Your task to perform on an android device: choose inbox layout in the gmail app Image 0: 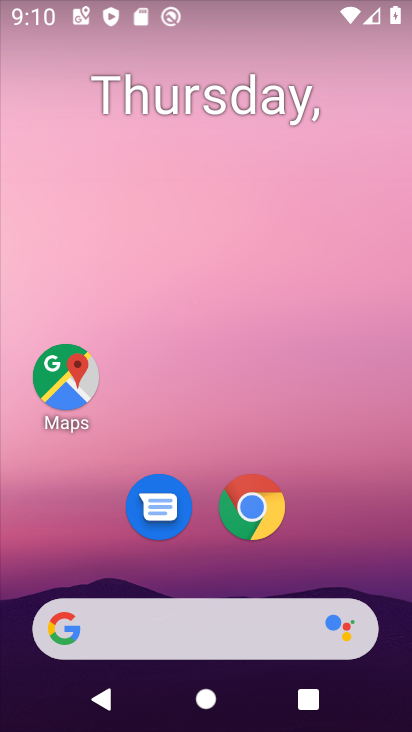
Step 0: drag from (212, 560) to (232, 11)
Your task to perform on an android device: choose inbox layout in the gmail app Image 1: 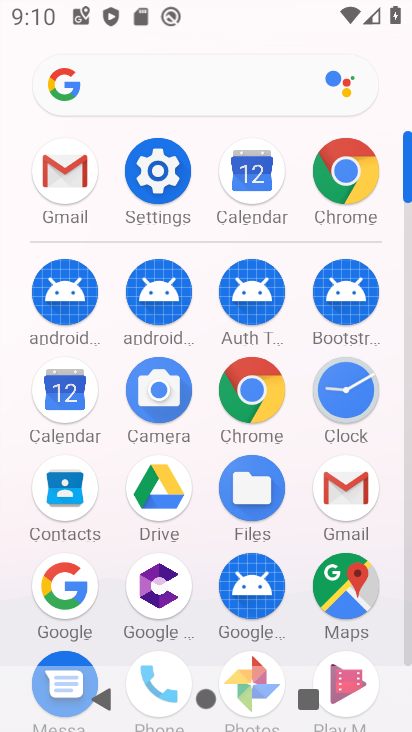
Step 1: click (343, 505)
Your task to perform on an android device: choose inbox layout in the gmail app Image 2: 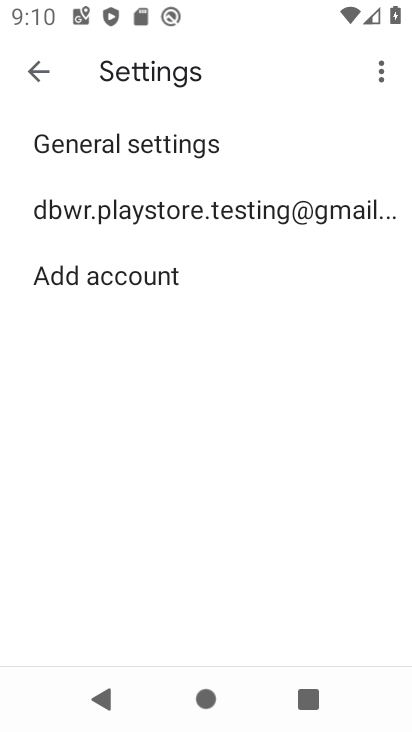
Step 2: click (180, 216)
Your task to perform on an android device: choose inbox layout in the gmail app Image 3: 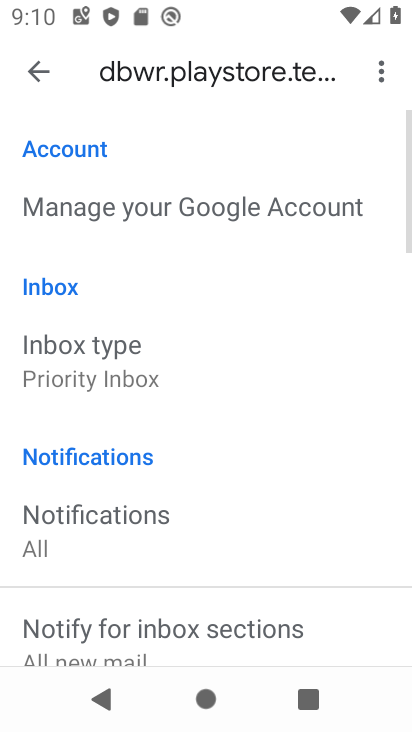
Step 3: click (103, 367)
Your task to perform on an android device: choose inbox layout in the gmail app Image 4: 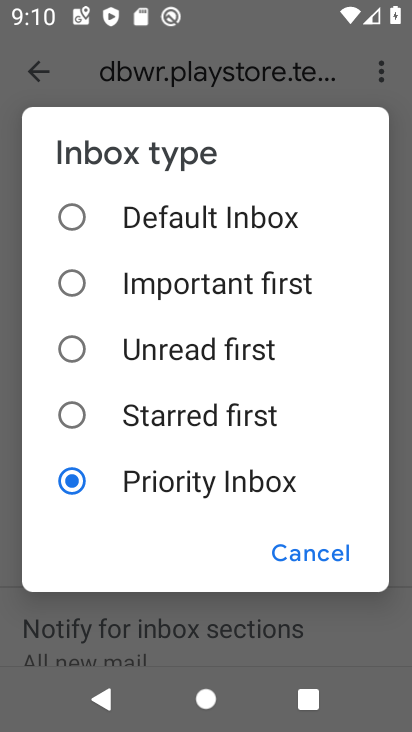
Step 4: click (154, 226)
Your task to perform on an android device: choose inbox layout in the gmail app Image 5: 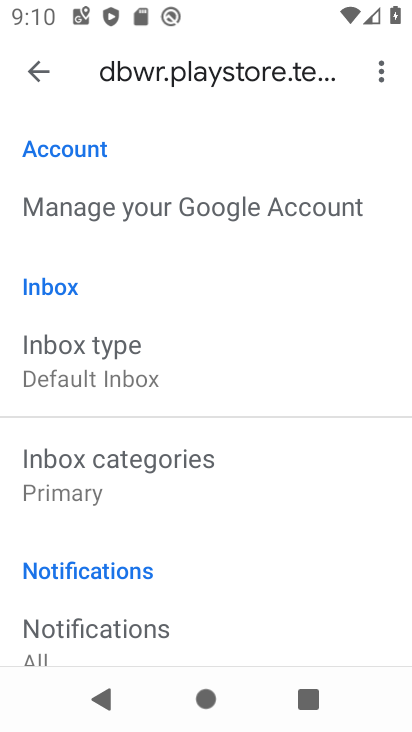
Step 5: task complete